Your task to perform on an android device: Go to notification settings Image 0: 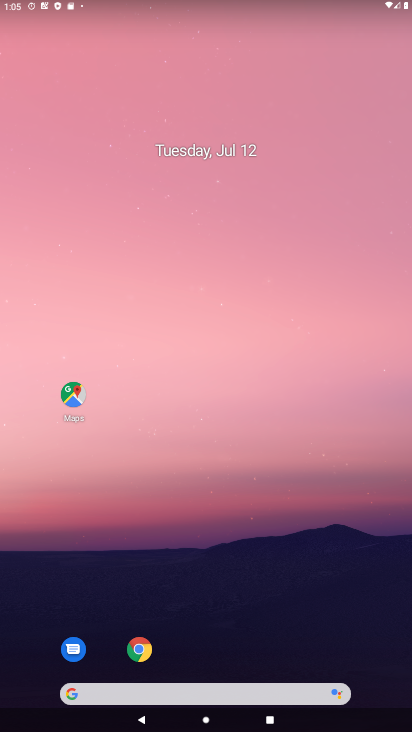
Step 0: drag from (358, 654) to (230, 1)
Your task to perform on an android device: Go to notification settings Image 1: 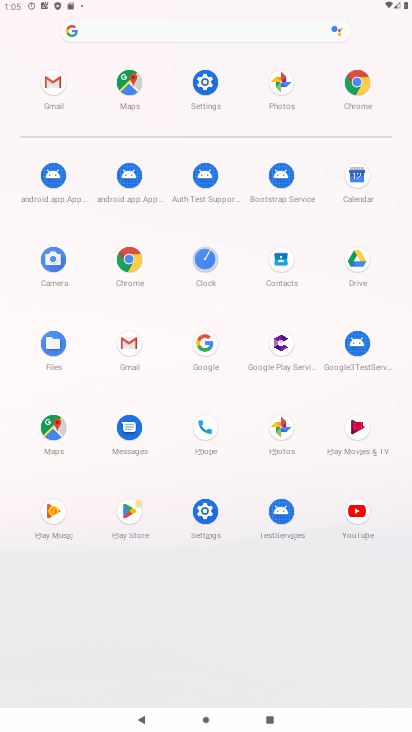
Step 1: click (195, 516)
Your task to perform on an android device: Go to notification settings Image 2: 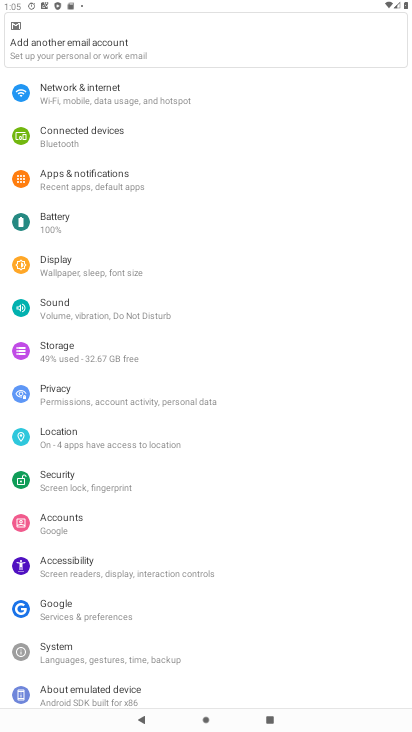
Step 2: click (134, 194)
Your task to perform on an android device: Go to notification settings Image 3: 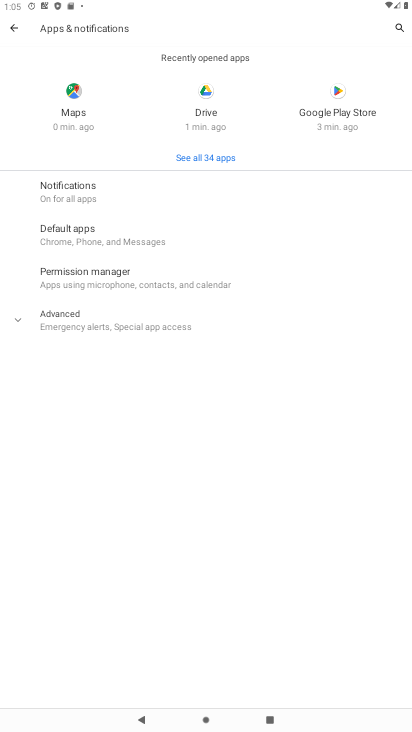
Step 3: click (60, 182)
Your task to perform on an android device: Go to notification settings Image 4: 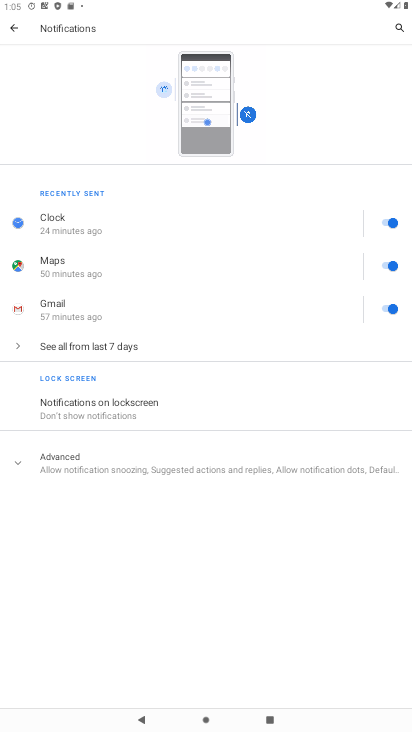
Step 4: task complete